Your task to perform on an android device: create a new album in the google photos Image 0: 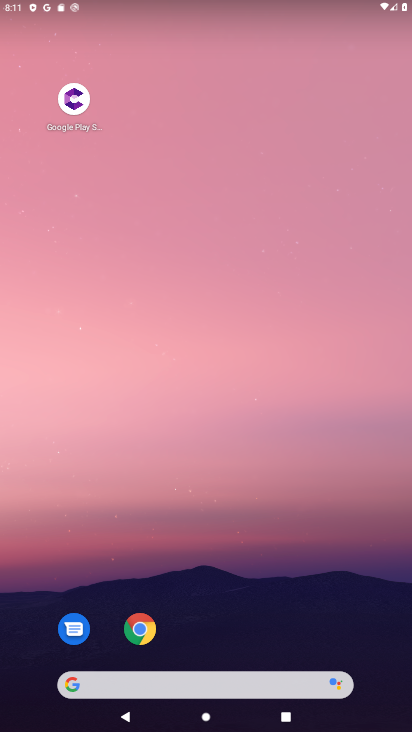
Step 0: drag from (196, 8) to (253, 540)
Your task to perform on an android device: create a new album in the google photos Image 1: 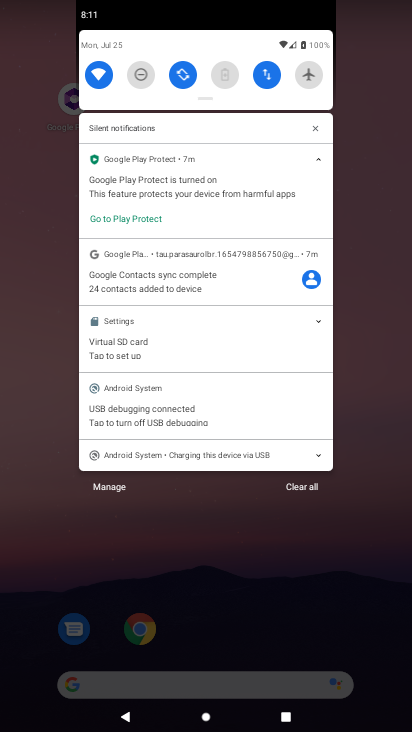
Step 1: click (101, 81)
Your task to perform on an android device: create a new album in the google photos Image 2: 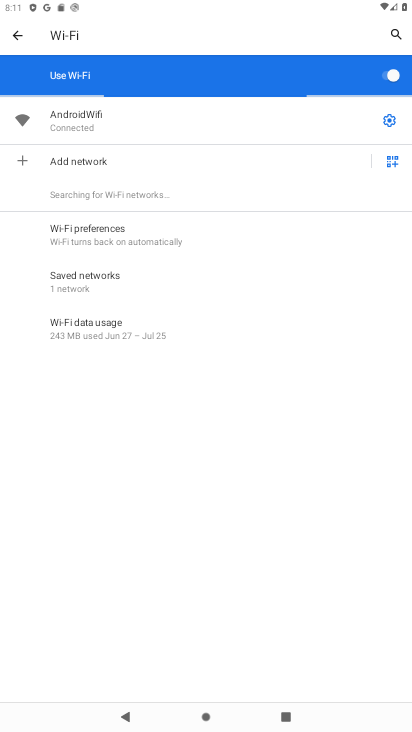
Step 2: task complete